Your task to perform on an android device: refresh tabs in the chrome app Image 0: 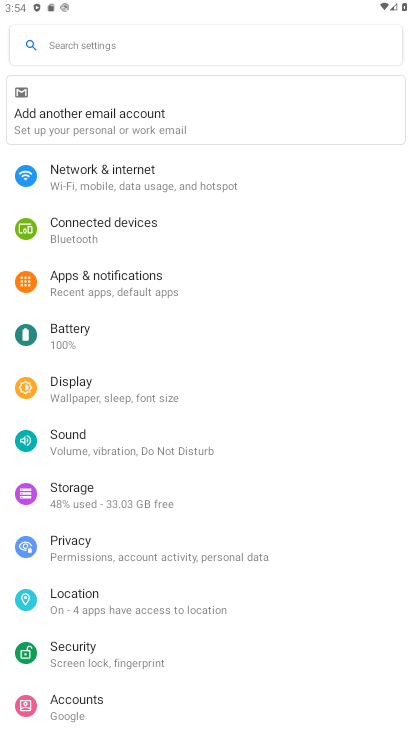
Step 0: press back button
Your task to perform on an android device: refresh tabs in the chrome app Image 1: 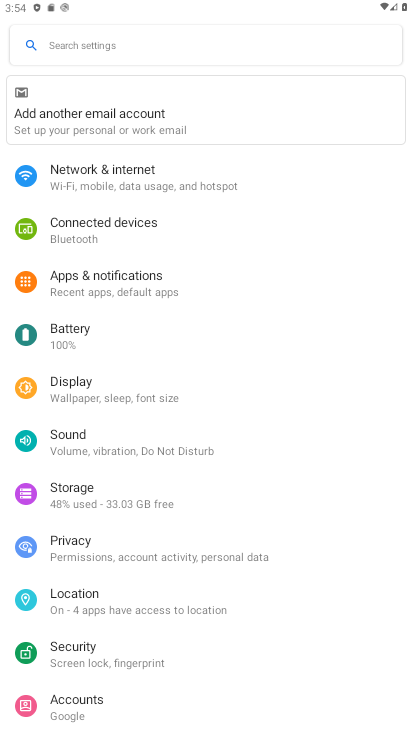
Step 1: press back button
Your task to perform on an android device: refresh tabs in the chrome app Image 2: 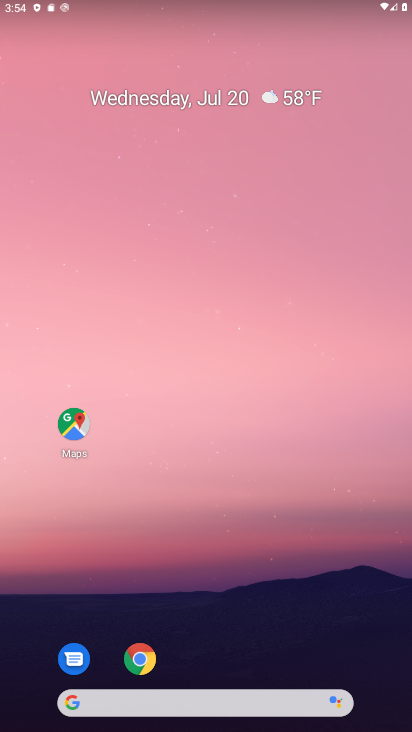
Step 2: drag from (285, 616) to (222, 166)
Your task to perform on an android device: refresh tabs in the chrome app Image 3: 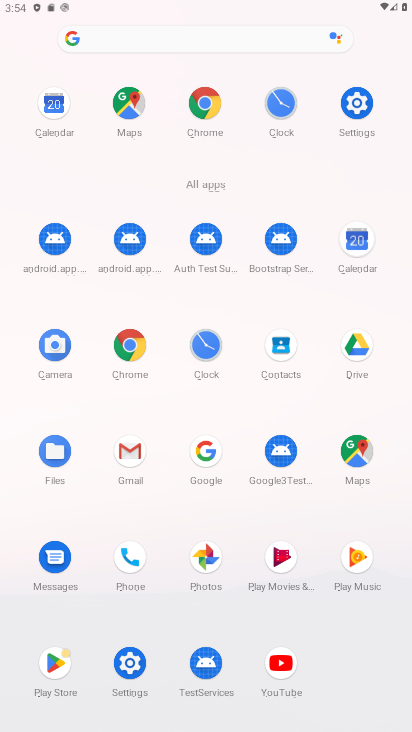
Step 3: click (197, 115)
Your task to perform on an android device: refresh tabs in the chrome app Image 4: 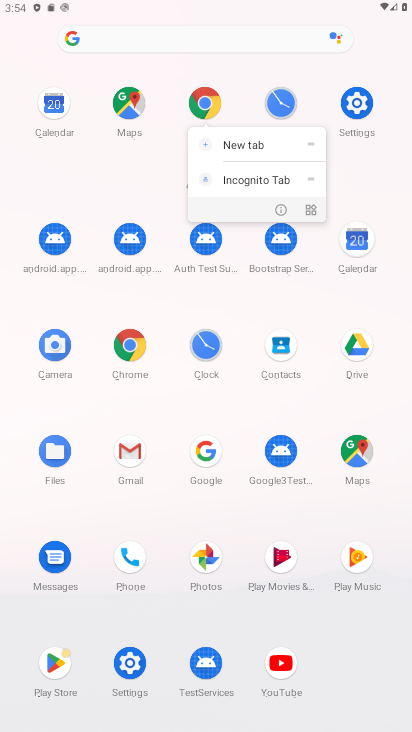
Step 4: click (198, 114)
Your task to perform on an android device: refresh tabs in the chrome app Image 5: 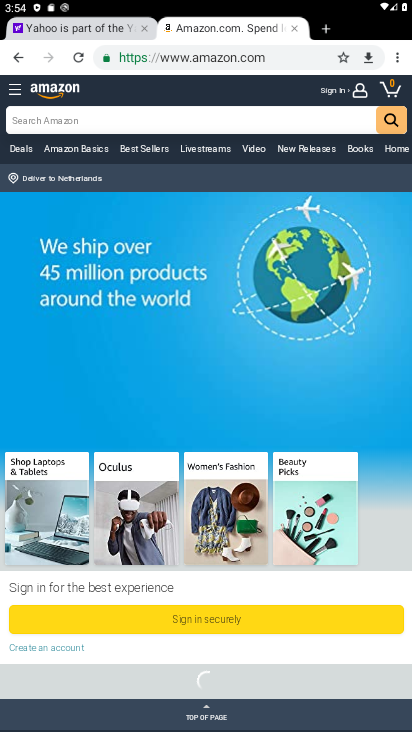
Step 5: drag from (398, 62) to (352, 45)
Your task to perform on an android device: refresh tabs in the chrome app Image 6: 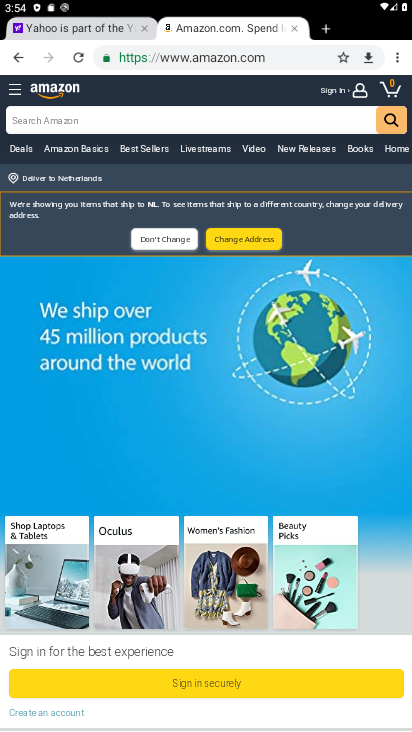
Step 6: click (390, 55)
Your task to perform on an android device: refresh tabs in the chrome app Image 7: 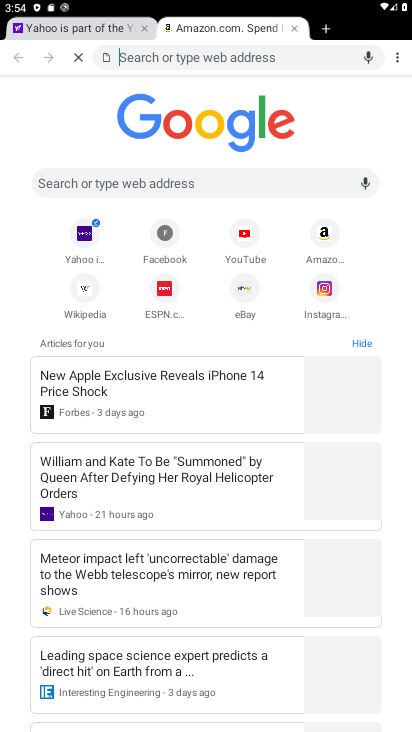
Step 7: click (390, 58)
Your task to perform on an android device: refresh tabs in the chrome app Image 8: 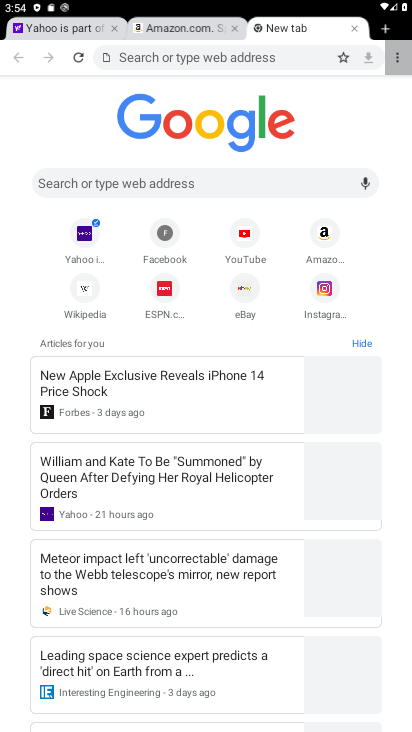
Step 8: drag from (390, 58) to (72, 68)
Your task to perform on an android device: refresh tabs in the chrome app Image 9: 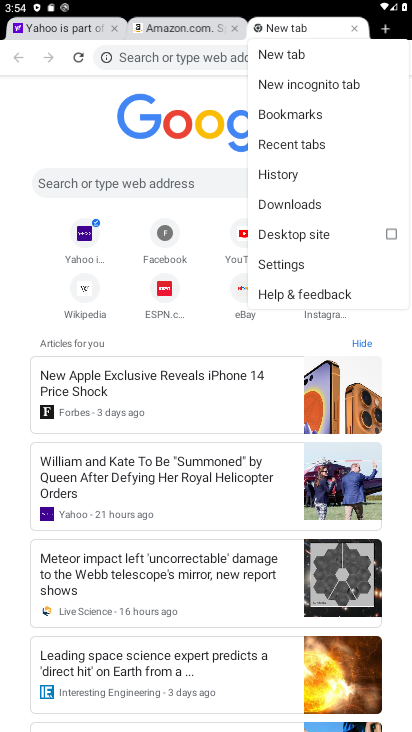
Step 9: click (66, 56)
Your task to perform on an android device: refresh tabs in the chrome app Image 10: 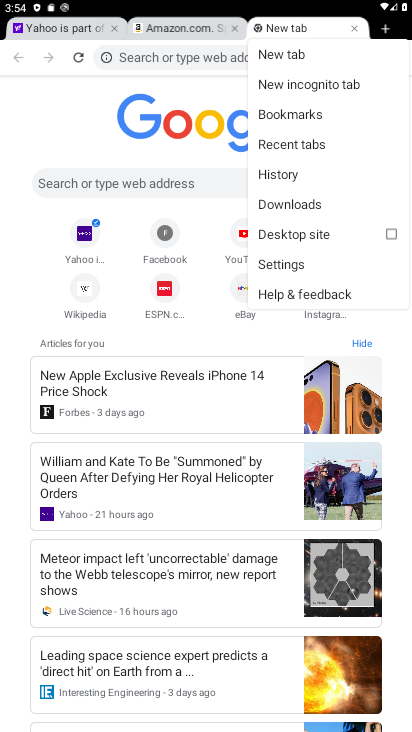
Step 10: click (84, 74)
Your task to perform on an android device: refresh tabs in the chrome app Image 11: 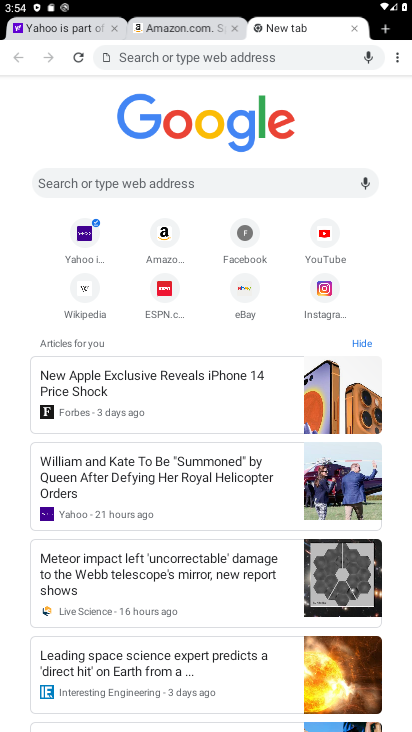
Step 11: task complete